Your task to perform on an android device: Open battery settings Image 0: 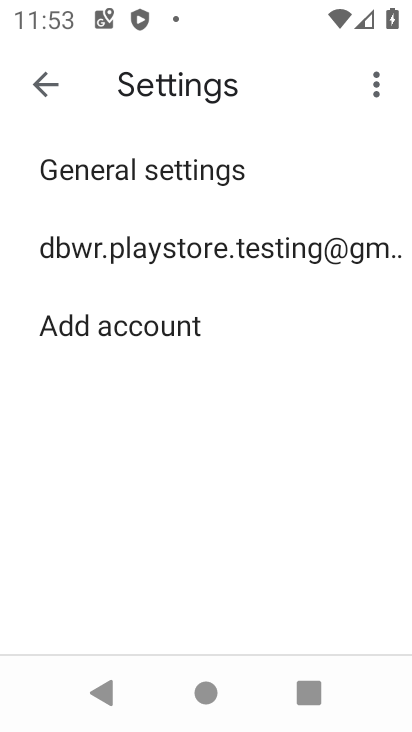
Step 0: press home button
Your task to perform on an android device: Open battery settings Image 1: 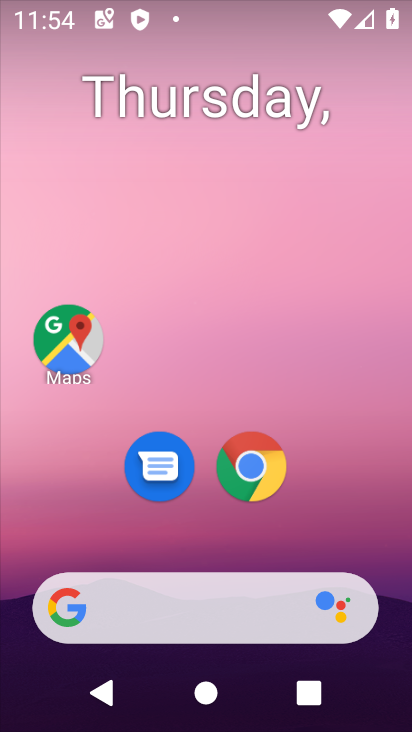
Step 1: drag from (383, 622) to (280, 33)
Your task to perform on an android device: Open battery settings Image 2: 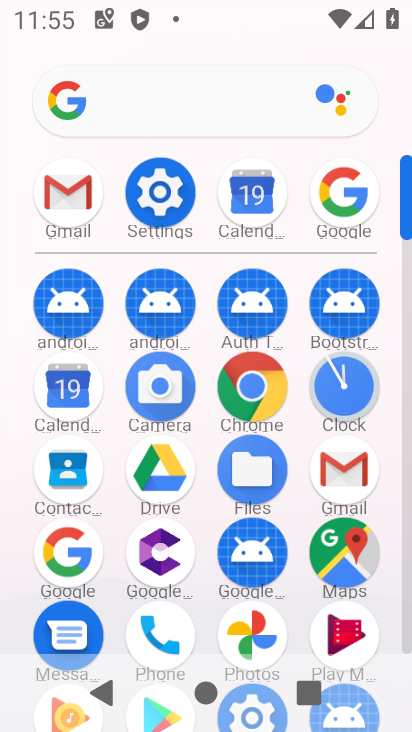
Step 2: click (175, 222)
Your task to perform on an android device: Open battery settings Image 3: 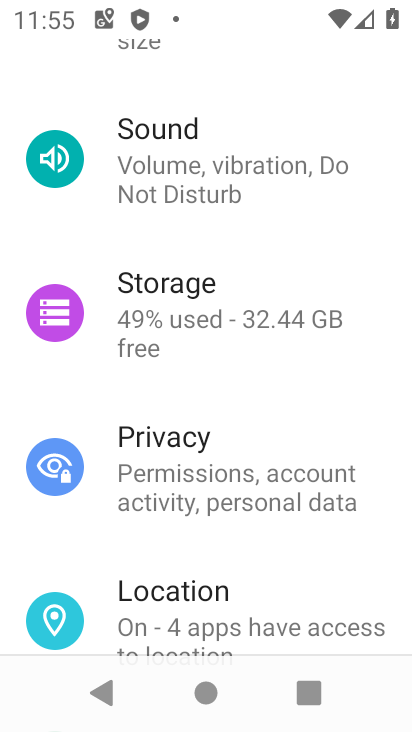
Step 3: drag from (176, 599) to (205, 71)
Your task to perform on an android device: Open battery settings Image 4: 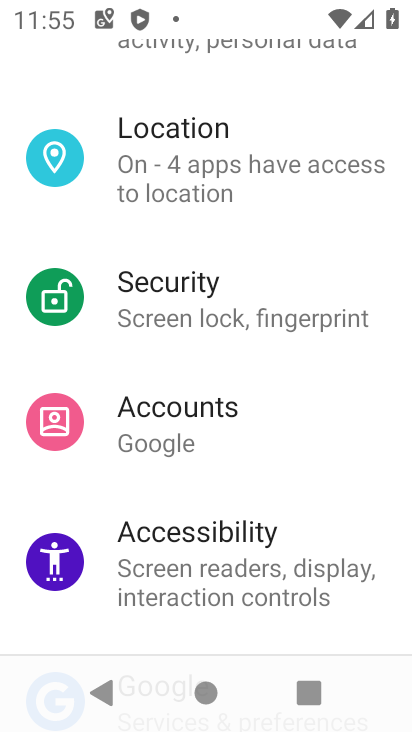
Step 4: drag from (212, 534) to (211, 39)
Your task to perform on an android device: Open battery settings Image 5: 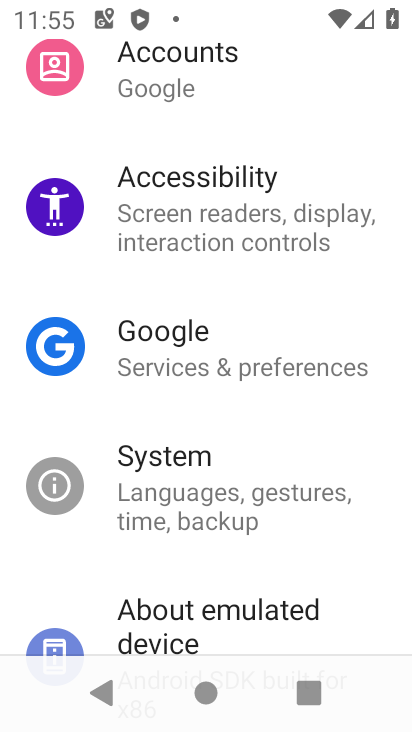
Step 5: drag from (246, 144) to (165, 622)
Your task to perform on an android device: Open battery settings Image 6: 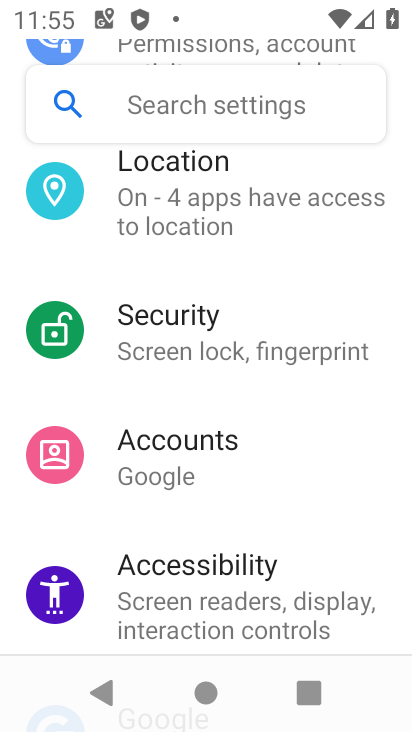
Step 6: drag from (159, 200) to (186, 602)
Your task to perform on an android device: Open battery settings Image 7: 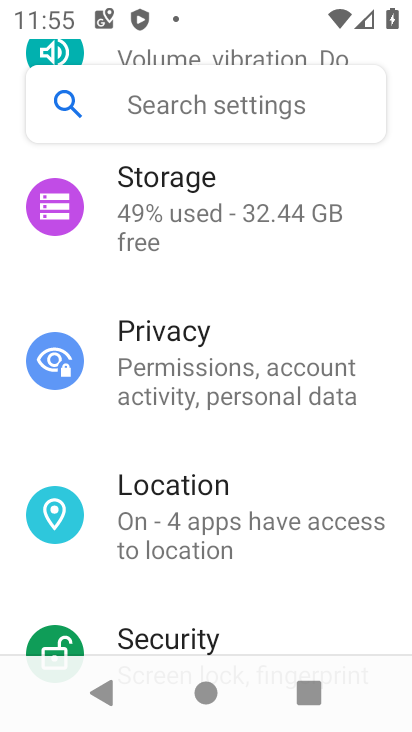
Step 7: drag from (183, 174) to (191, 588)
Your task to perform on an android device: Open battery settings Image 8: 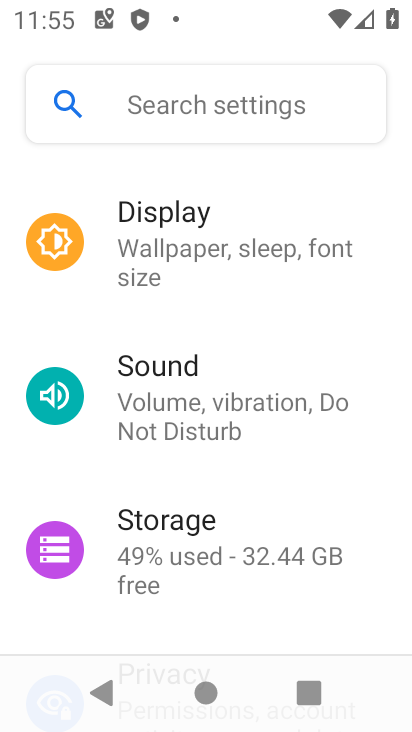
Step 8: drag from (196, 236) to (179, 642)
Your task to perform on an android device: Open battery settings Image 9: 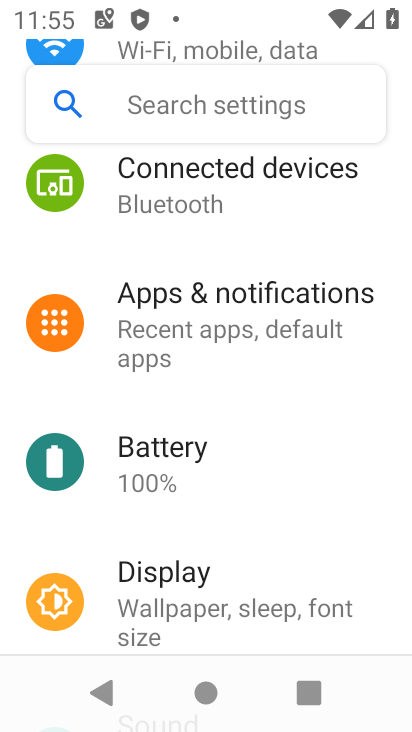
Step 9: click (202, 487)
Your task to perform on an android device: Open battery settings Image 10: 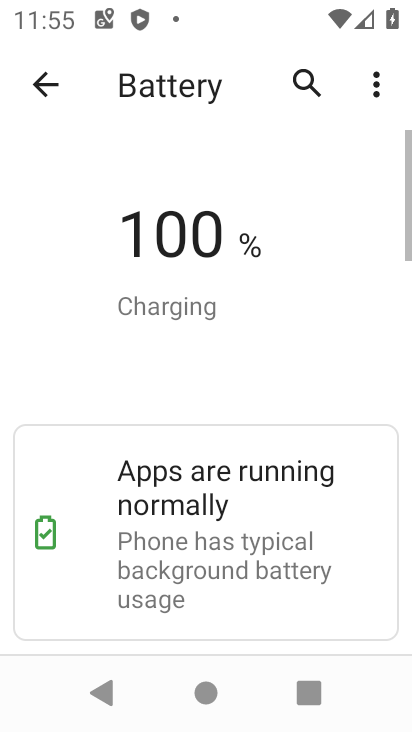
Step 10: task complete